Your task to perform on an android device: Empty the shopping cart on newegg. Search for dell xps on newegg, select the first entry, add it to the cart, then select checkout. Image 0: 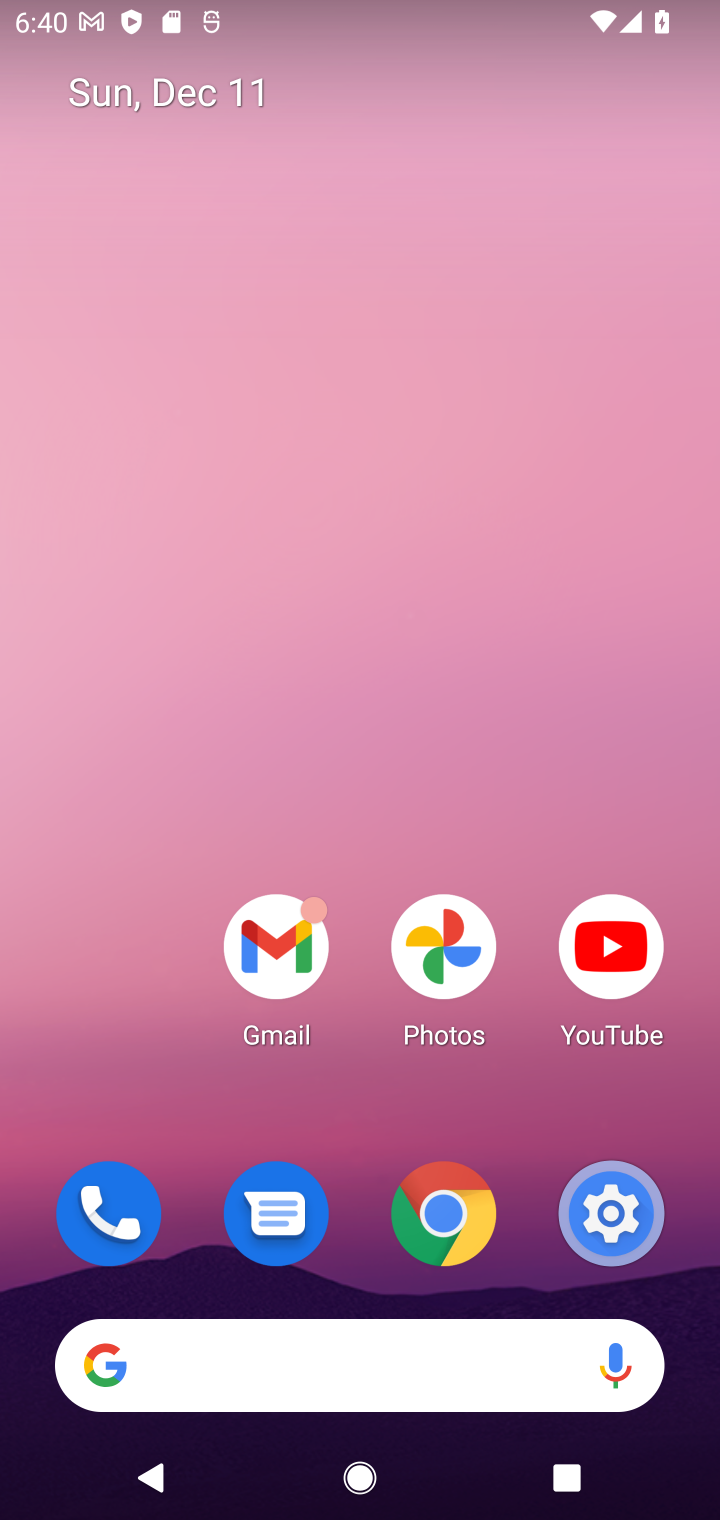
Step 0: click (381, 1348)
Your task to perform on an android device: Empty the shopping cart on newegg. Search for dell xps on newegg, select the first entry, add it to the cart, then select checkout. Image 1: 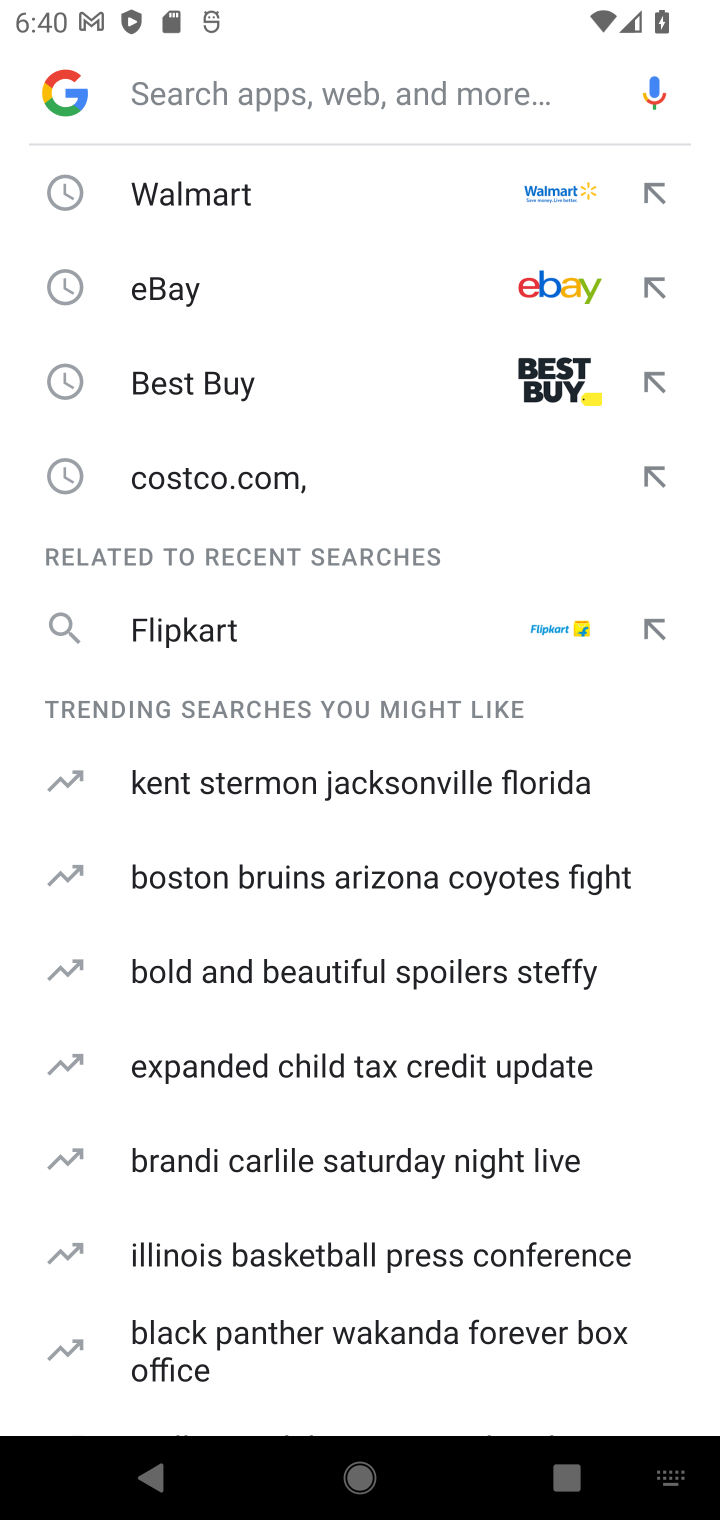
Step 1: type "newegg"
Your task to perform on an android device: Empty the shopping cart on newegg. Search for dell xps on newegg, select the first entry, add it to the cart, then select checkout. Image 2: 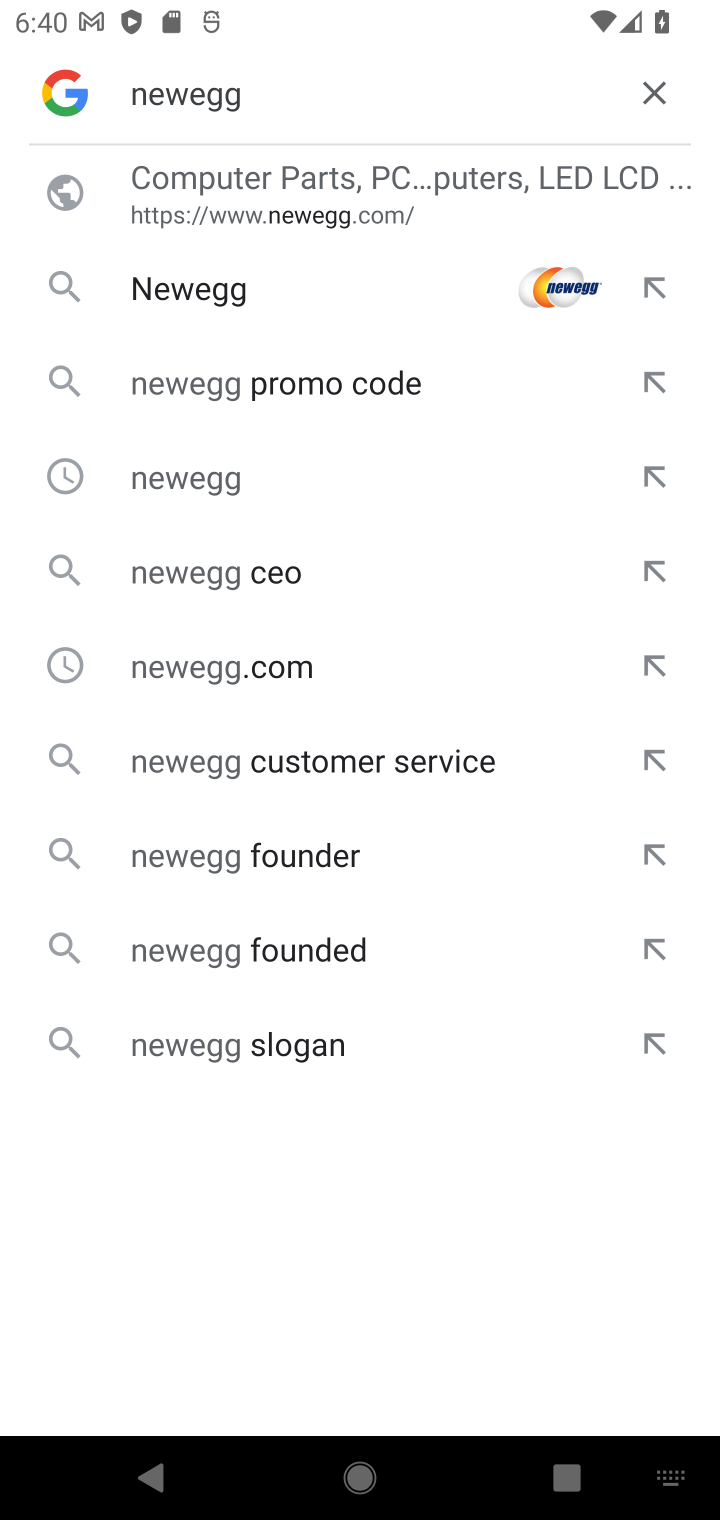
Step 2: click (344, 234)
Your task to perform on an android device: Empty the shopping cart on newegg. Search for dell xps on newegg, select the first entry, add it to the cart, then select checkout. Image 3: 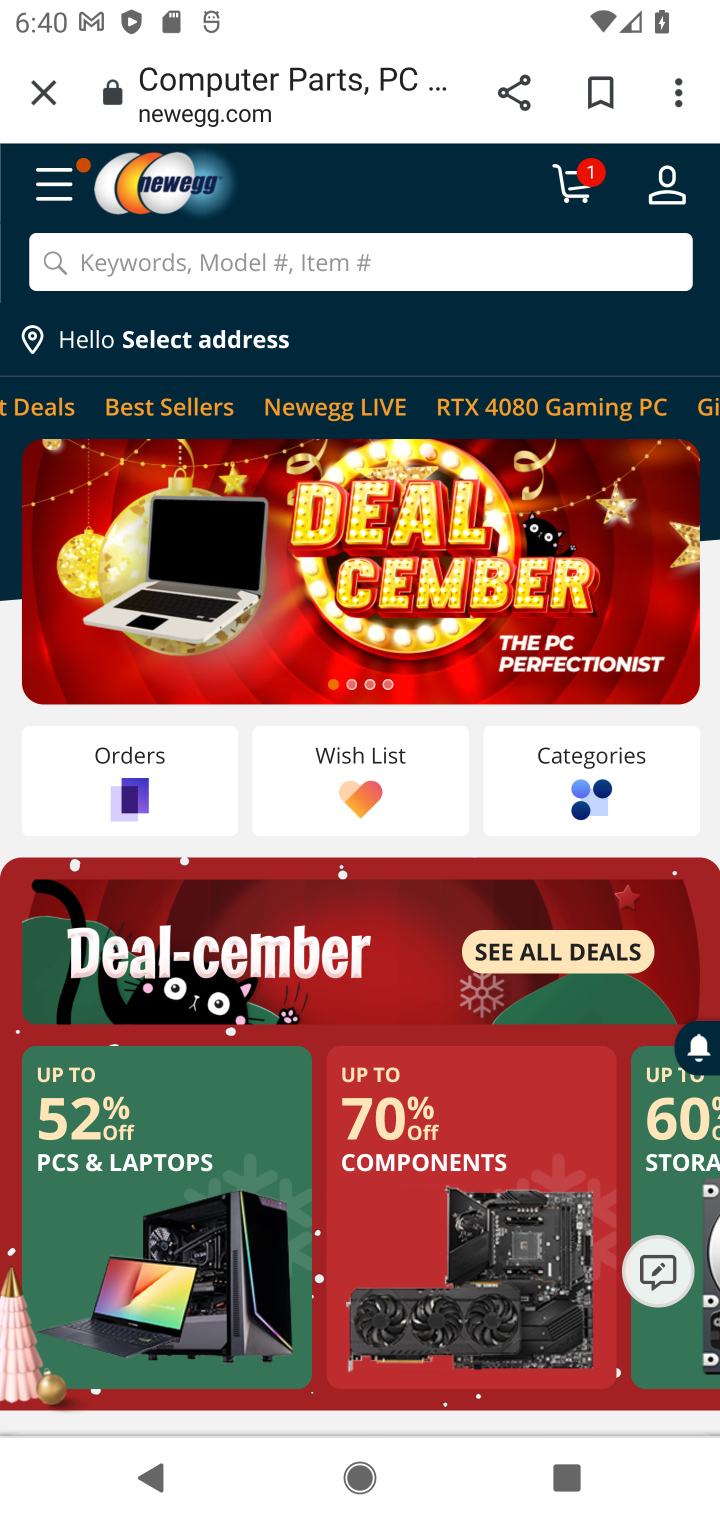
Step 3: click (219, 283)
Your task to perform on an android device: Empty the shopping cart on newegg. Search for dell xps on newegg, select the first entry, add it to the cart, then select checkout. Image 4: 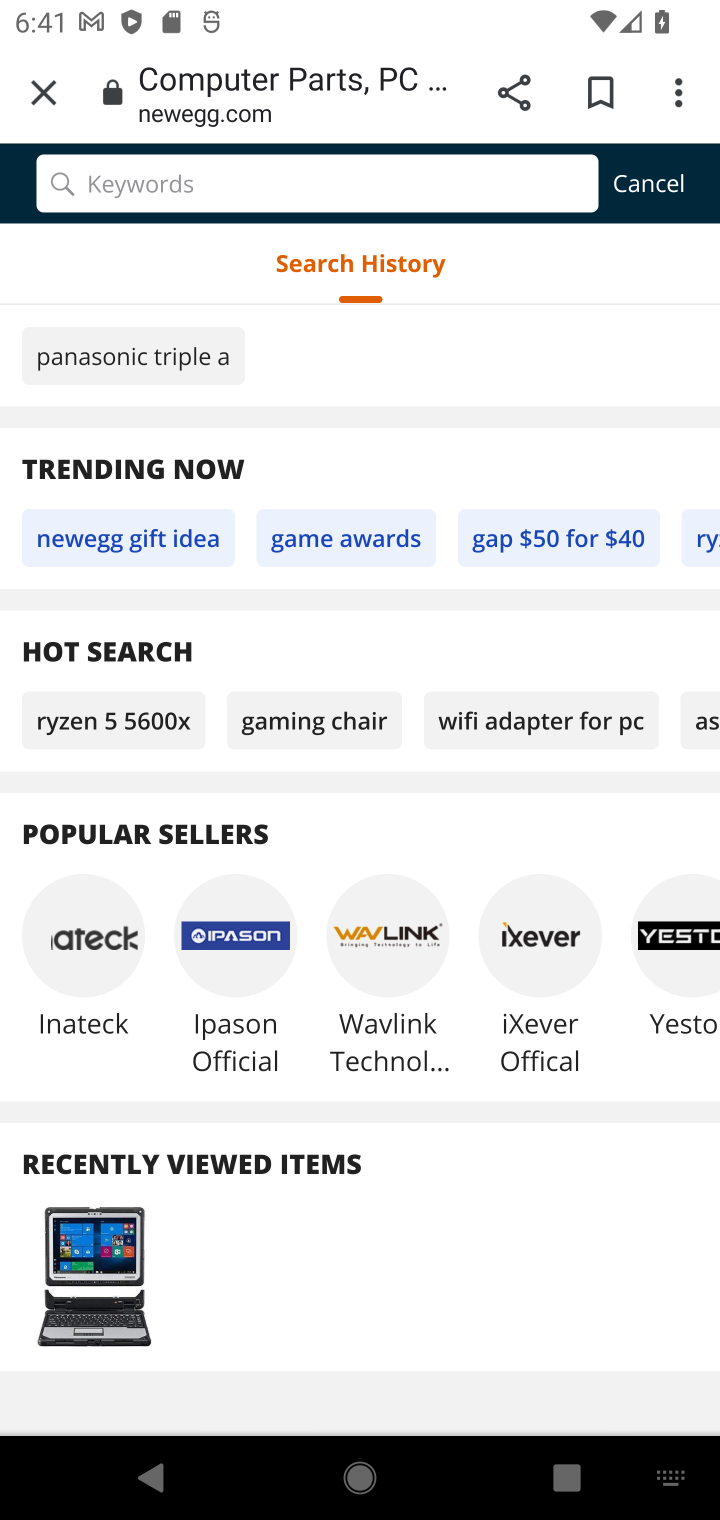
Step 4: type "dell xps"
Your task to perform on an android device: Empty the shopping cart on newegg. Search for dell xps on newegg, select the first entry, add it to the cart, then select checkout. Image 5: 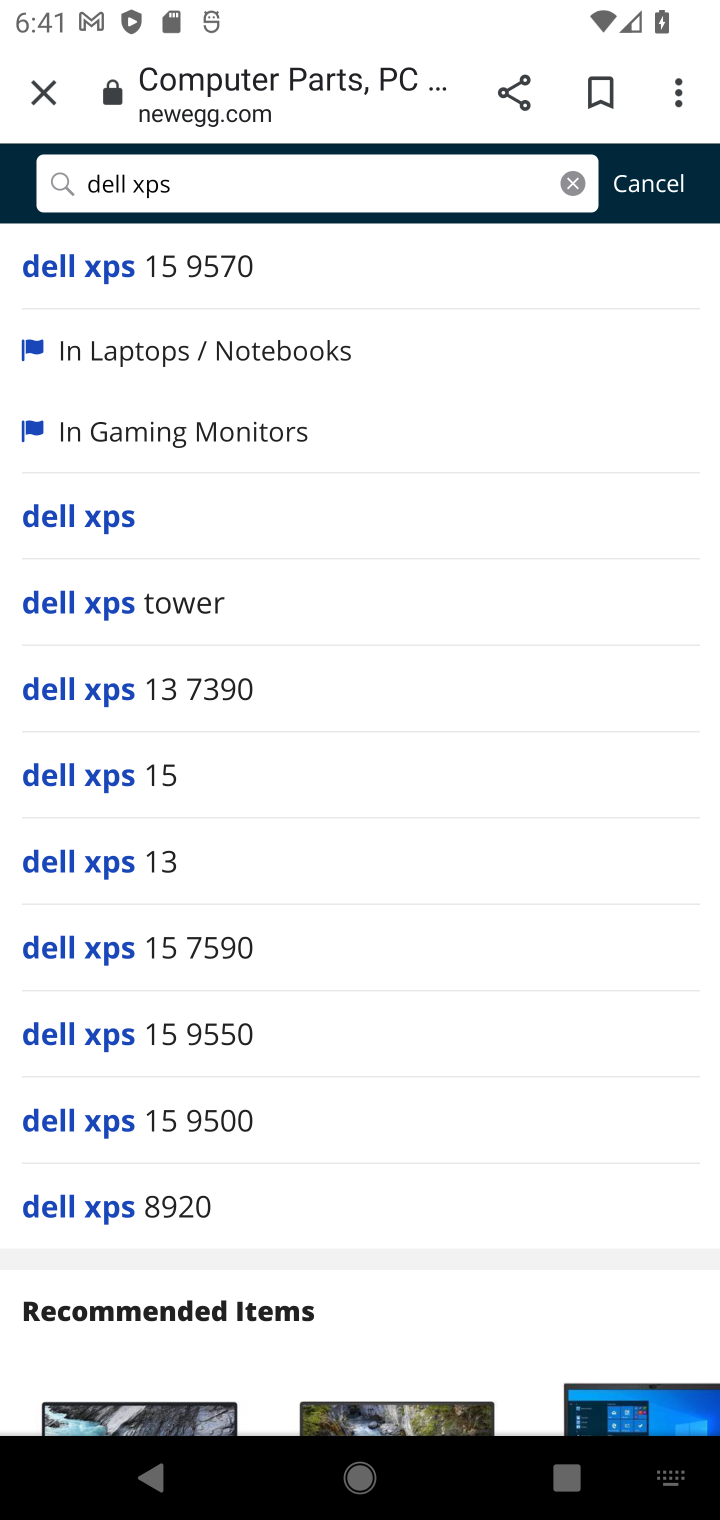
Step 5: click (182, 527)
Your task to perform on an android device: Empty the shopping cart on newegg. Search for dell xps on newegg, select the first entry, add it to the cart, then select checkout. Image 6: 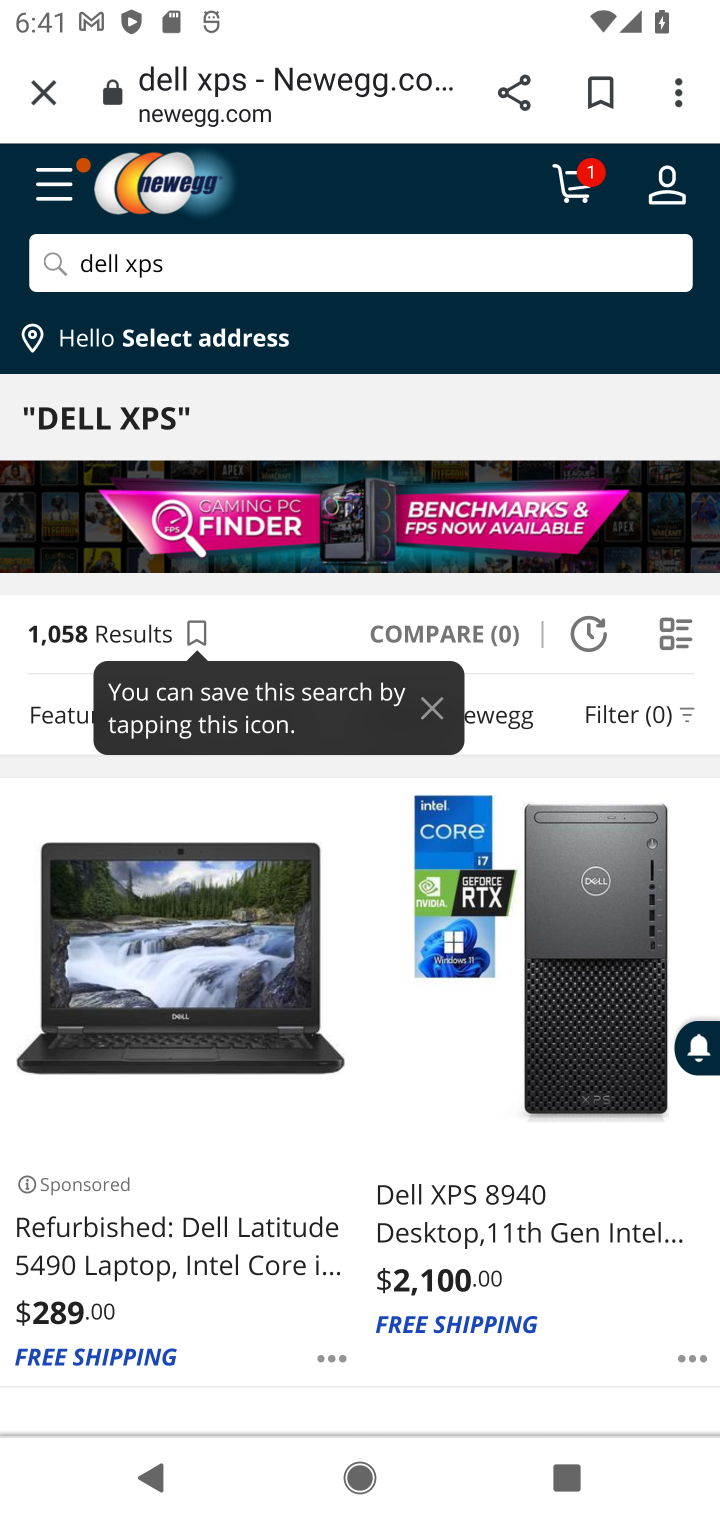
Step 6: click (248, 1310)
Your task to perform on an android device: Empty the shopping cart on newegg. Search for dell xps on newegg, select the first entry, add it to the cart, then select checkout. Image 7: 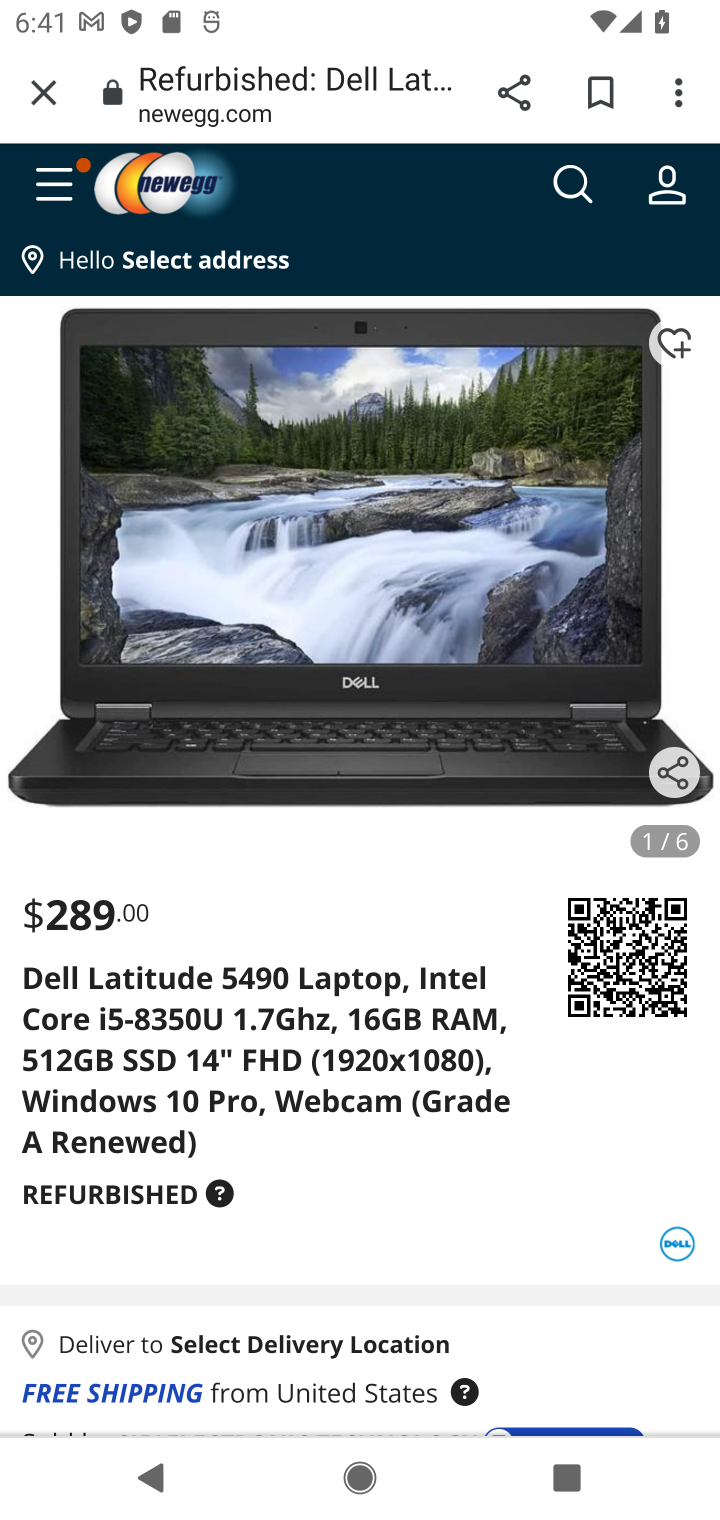
Step 7: click (270, 1383)
Your task to perform on an android device: Empty the shopping cart on newegg. Search for dell xps on newegg, select the first entry, add it to the cart, then select checkout. Image 8: 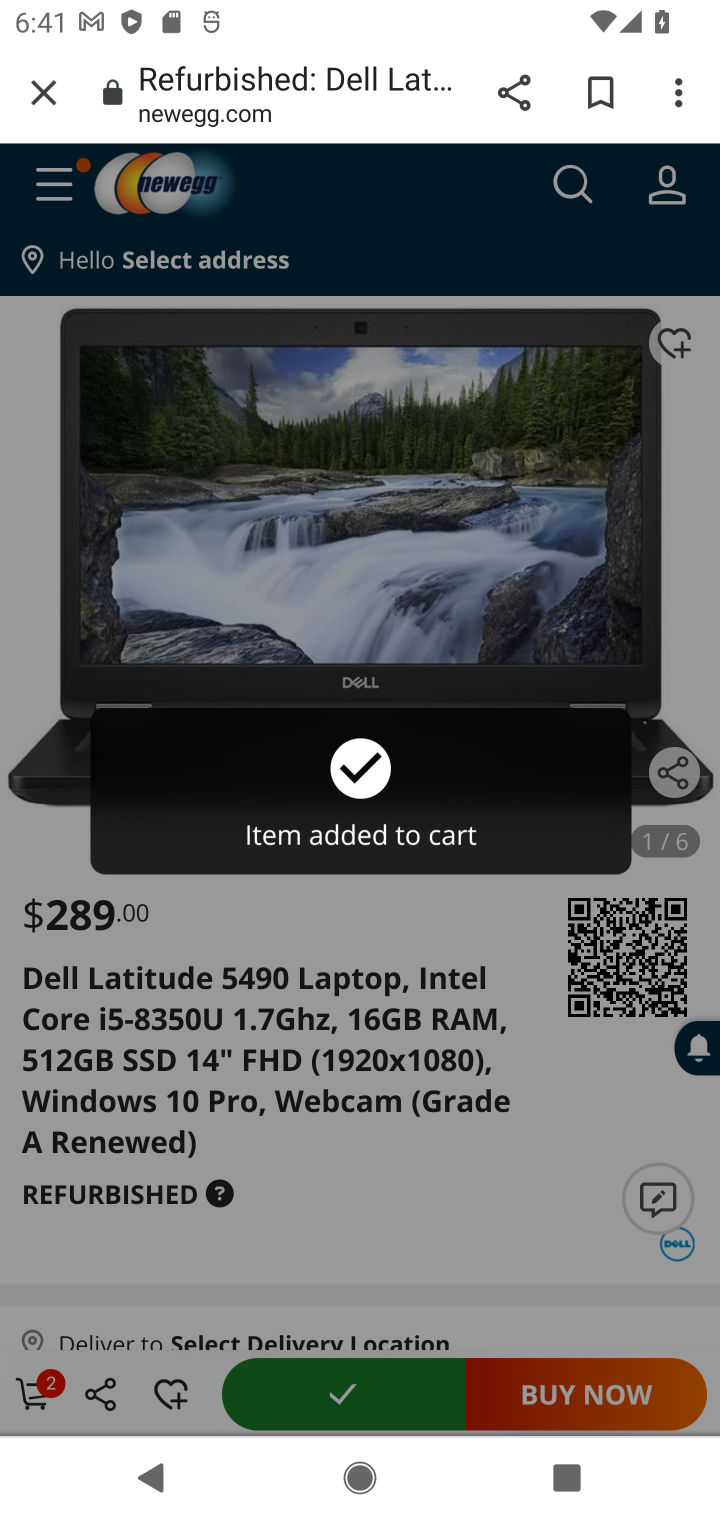
Step 8: task complete